Your task to perform on an android device: Open battery settings Image 0: 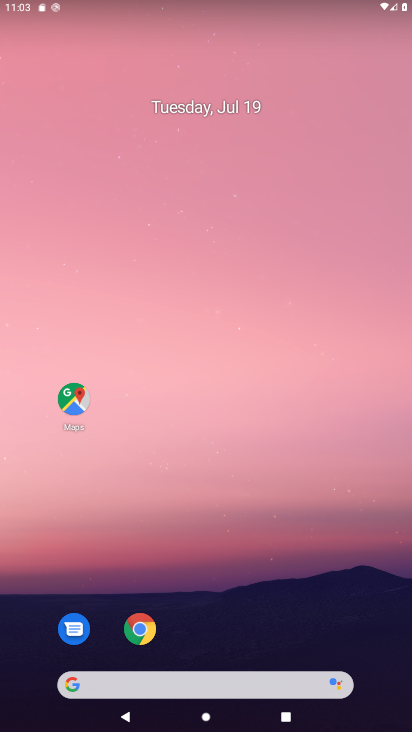
Step 0: drag from (240, 478) to (227, 122)
Your task to perform on an android device: Open battery settings Image 1: 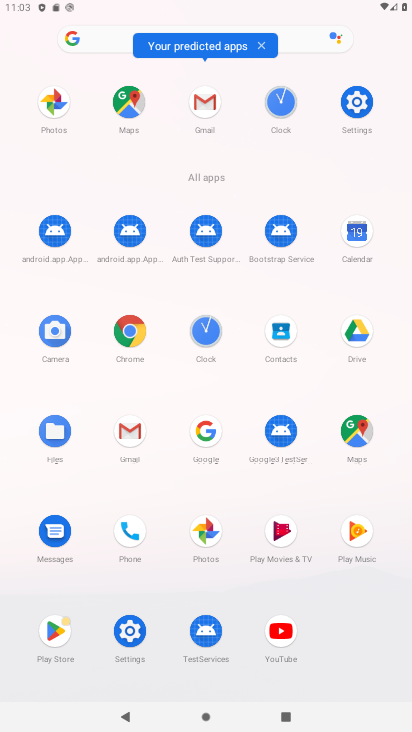
Step 1: click (357, 96)
Your task to perform on an android device: Open battery settings Image 2: 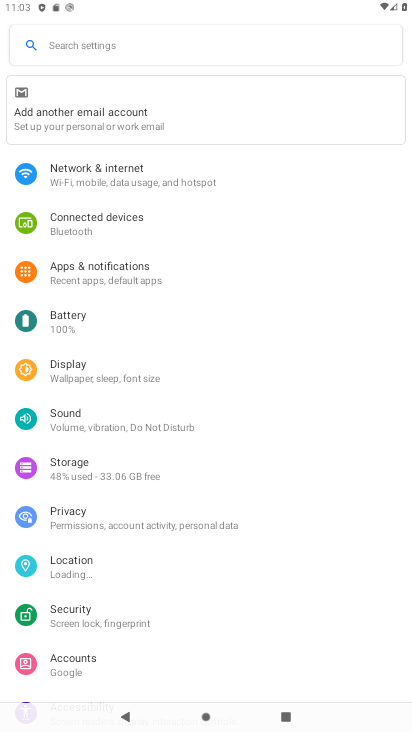
Step 2: click (66, 323)
Your task to perform on an android device: Open battery settings Image 3: 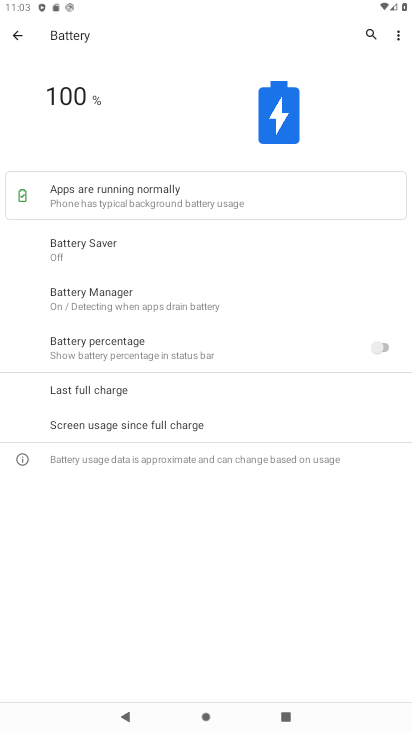
Step 3: task complete